Your task to perform on an android device: Go to location settings Image 0: 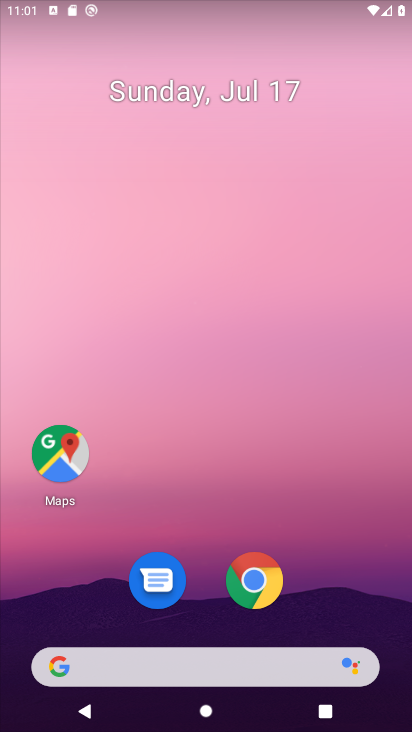
Step 0: drag from (140, 658) to (178, 69)
Your task to perform on an android device: Go to location settings Image 1: 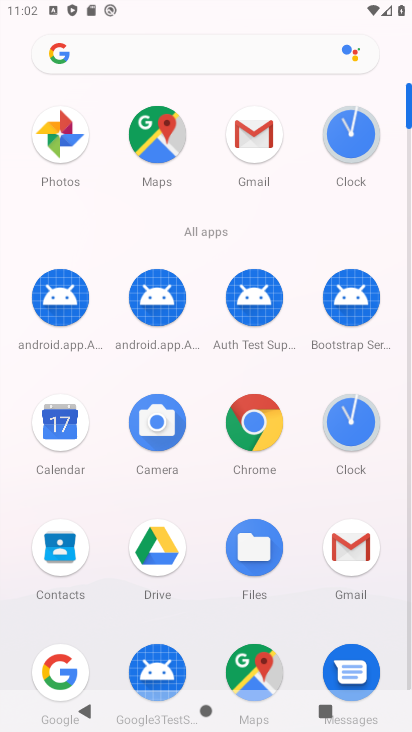
Step 1: drag from (175, 580) to (220, 222)
Your task to perform on an android device: Go to location settings Image 2: 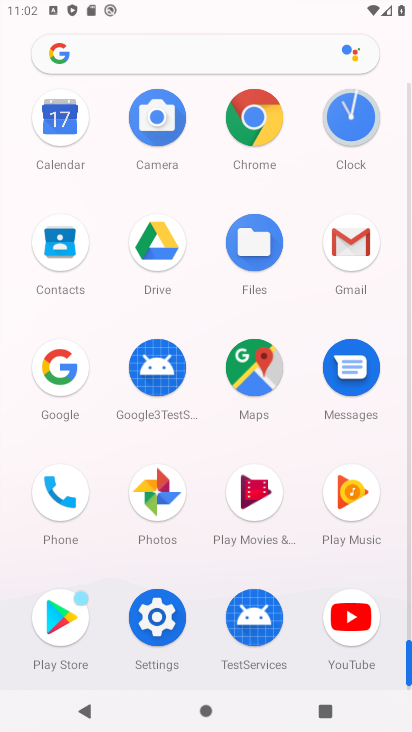
Step 2: click (171, 628)
Your task to perform on an android device: Go to location settings Image 3: 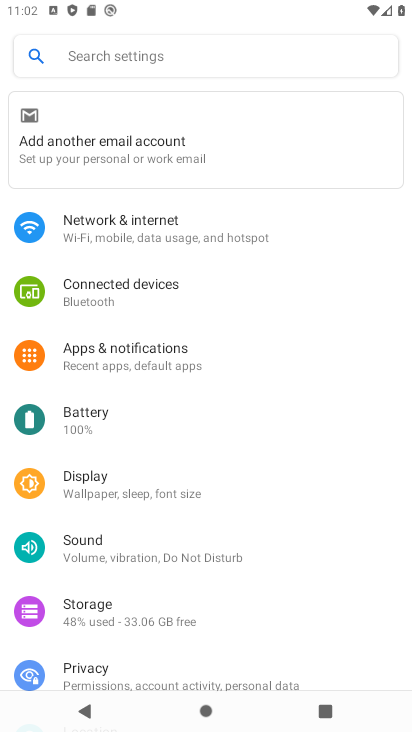
Step 3: drag from (212, 572) to (210, 217)
Your task to perform on an android device: Go to location settings Image 4: 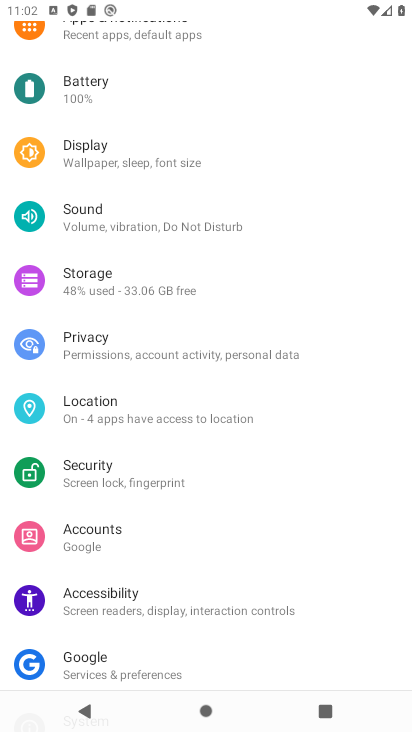
Step 4: click (133, 428)
Your task to perform on an android device: Go to location settings Image 5: 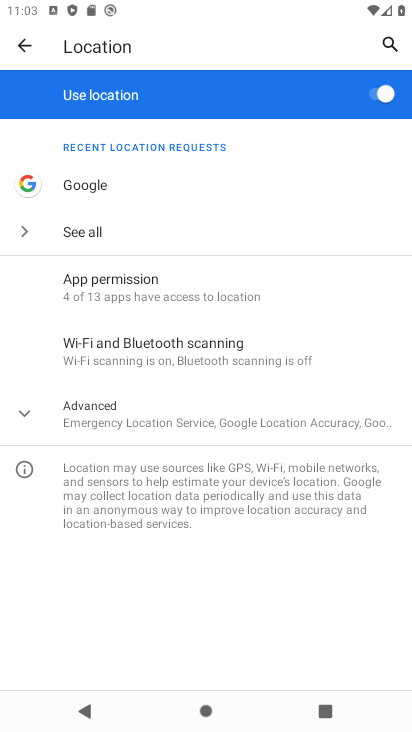
Step 5: task complete